Your task to perform on an android device: visit the assistant section in the google photos Image 0: 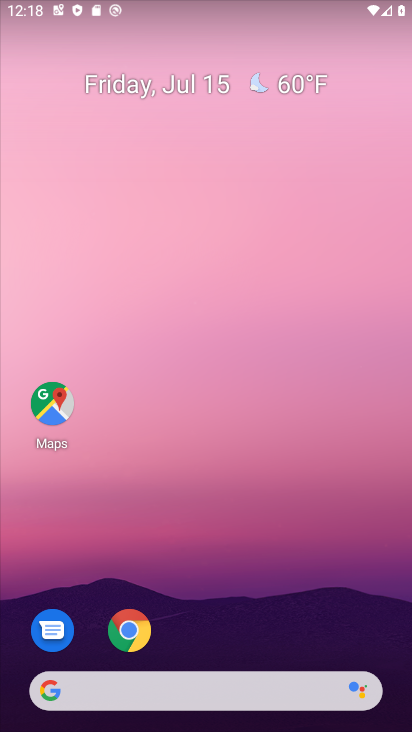
Step 0: drag from (25, 704) to (159, 50)
Your task to perform on an android device: visit the assistant section in the google photos Image 1: 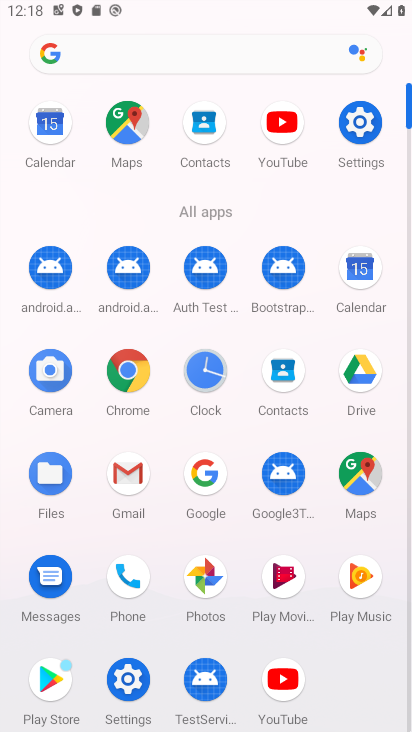
Step 1: click (215, 579)
Your task to perform on an android device: visit the assistant section in the google photos Image 2: 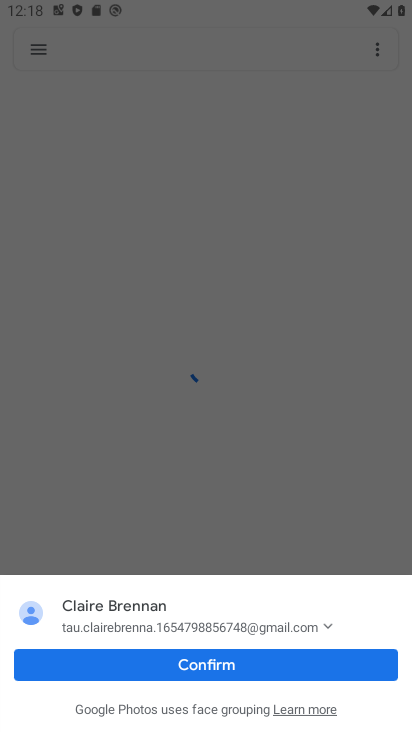
Step 2: click (262, 711)
Your task to perform on an android device: visit the assistant section in the google photos Image 3: 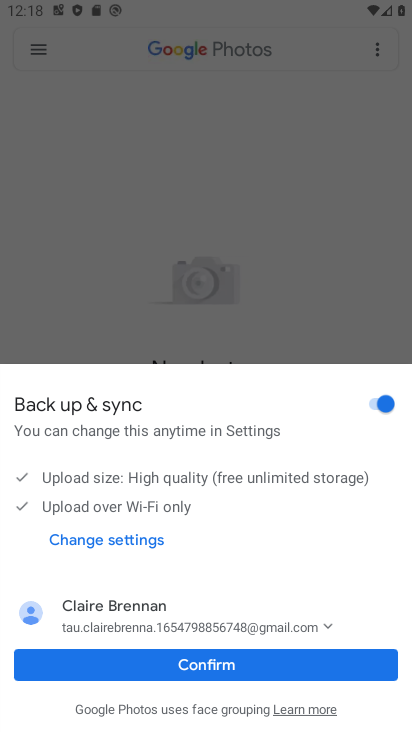
Step 3: click (239, 672)
Your task to perform on an android device: visit the assistant section in the google photos Image 4: 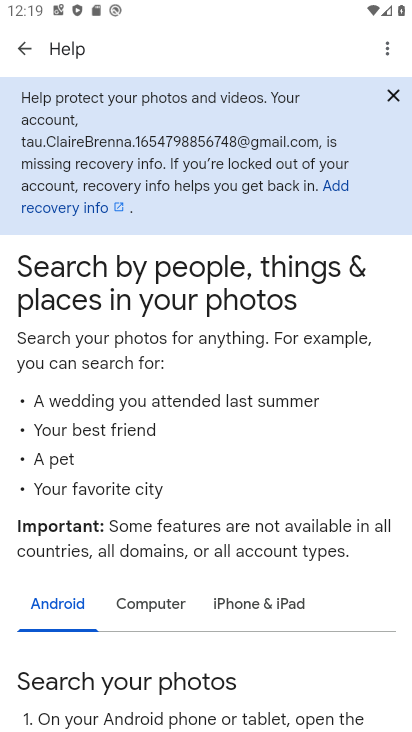
Step 4: click (25, 53)
Your task to perform on an android device: visit the assistant section in the google photos Image 5: 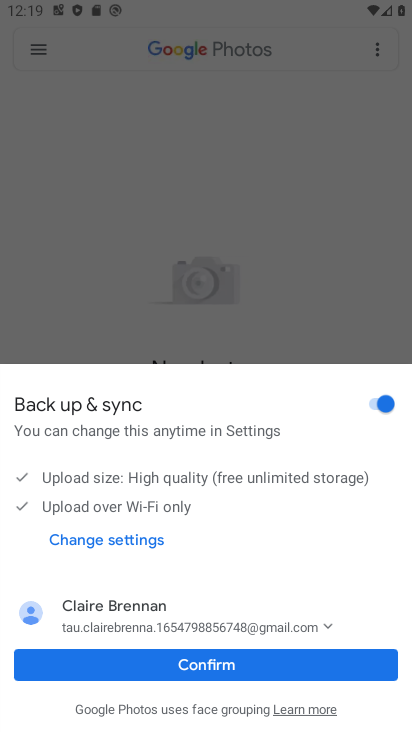
Step 5: click (271, 661)
Your task to perform on an android device: visit the assistant section in the google photos Image 6: 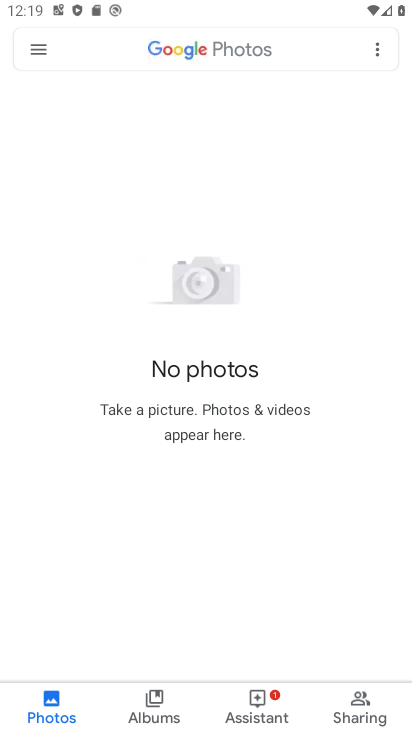
Step 6: click (253, 697)
Your task to perform on an android device: visit the assistant section in the google photos Image 7: 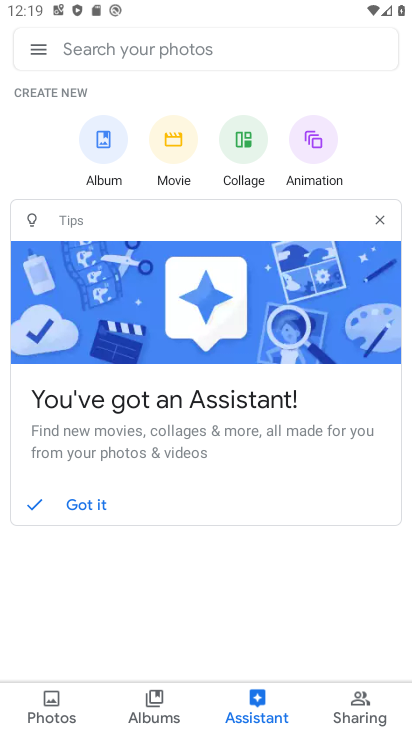
Step 7: task complete